Your task to perform on an android device: Open Google Chrome and click the shortcut for Amazon.com Image 0: 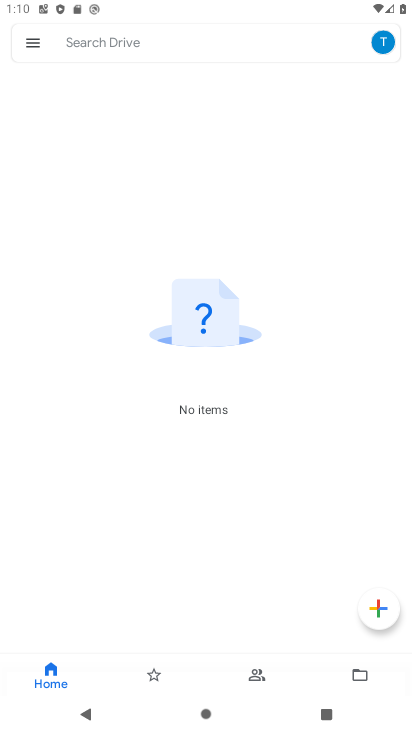
Step 0: press home button
Your task to perform on an android device: Open Google Chrome and click the shortcut for Amazon.com Image 1: 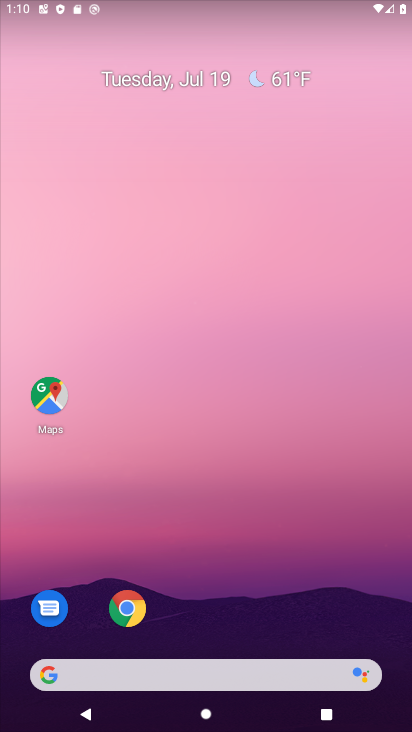
Step 1: click (120, 606)
Your task to perform on an android device: Open Google Chrome and click the shortcut for Amazon.com Image 2: 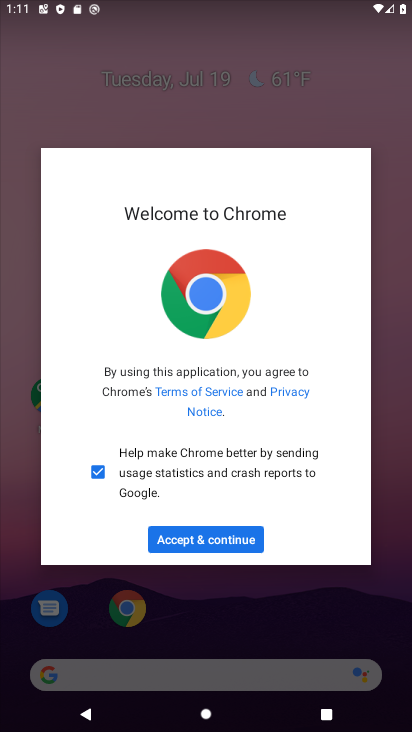
Step 2: click (176, 537)
Your task to perform on an android device: Open Google Chrome and click the shortcut for Amazon.com Image 3: 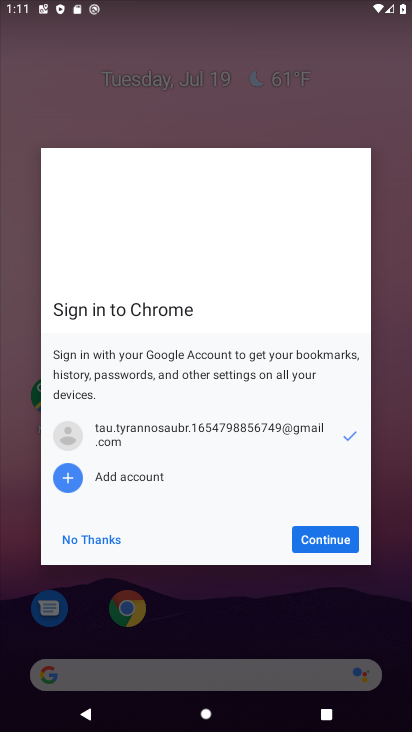
Step 3: click (320, 541)
Your task to perform on an android device: Open Google Chrome and click the shortcut for Amazon.com Image 4: 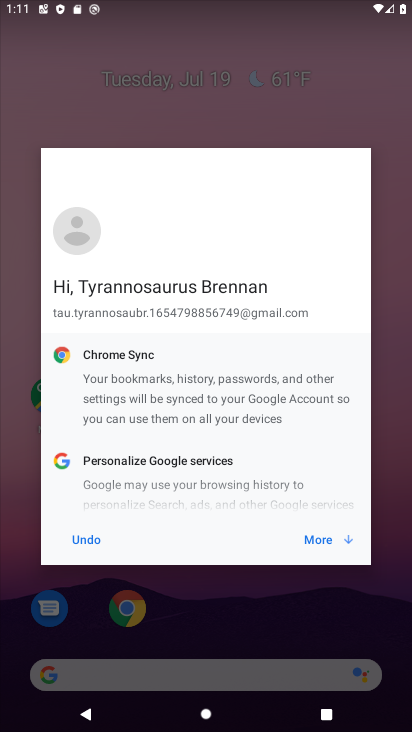
Step 4: click (320, 541)
Your task to perform on an android device: Open Google Chrome and click the shortcut for Amazon.com Image 5: 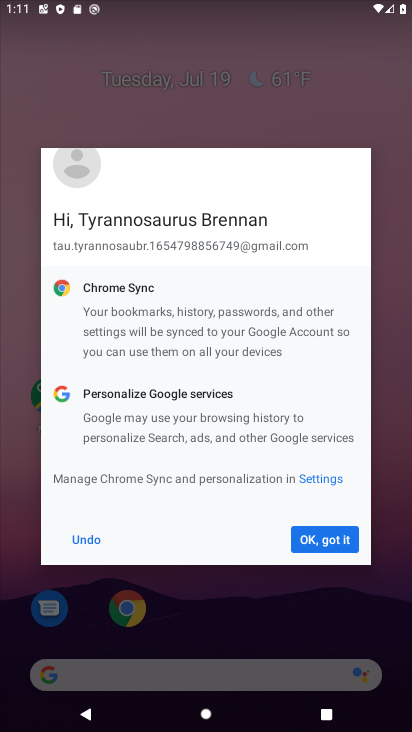
Step 5: click (320, 541)
Your task to perform on an android device: Open Google Chrome and click the shortcut for Amazon.com Image 6: 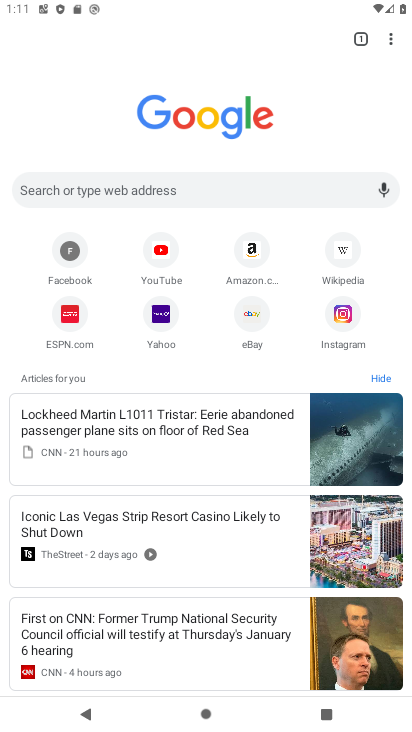
Step 6: click (252, 252)
Your task to perform on an android device: Open Google Chrome and click the shortcut for Amazon.com Image 7: 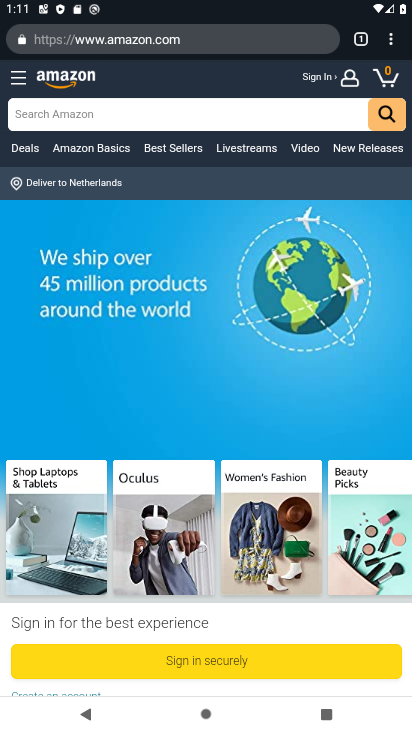
Step 7: task complete